Your task to perform on an android device: check storage Image 0: 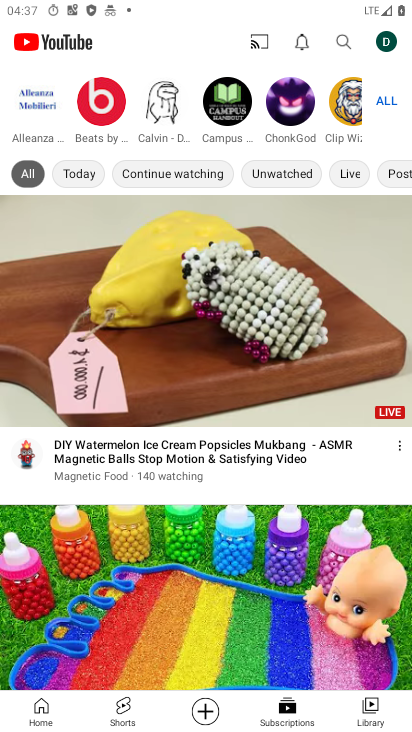
Step 0: press home button
Your task to perform on an android device: check storage Image 1: 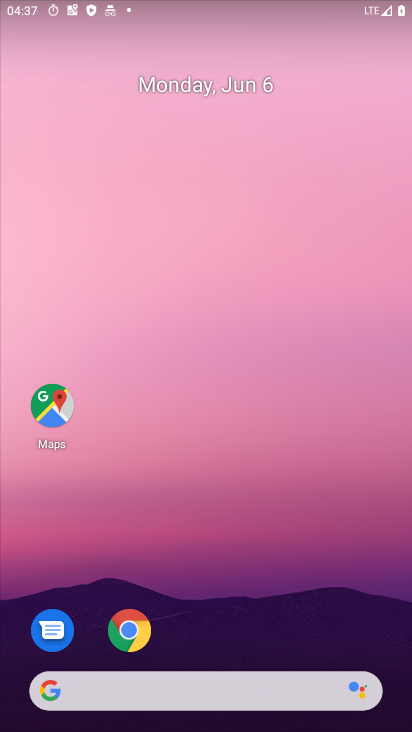
Step 1: drag from (213, 630) to (133, 48)
Your task to perform on an android device: check storage Image 2: 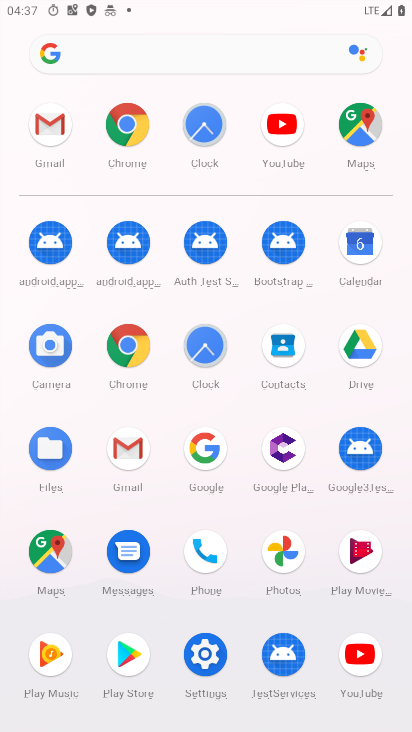
Step 2: click (196, 666)
Your task to perform on an android device: check storage Image 3: 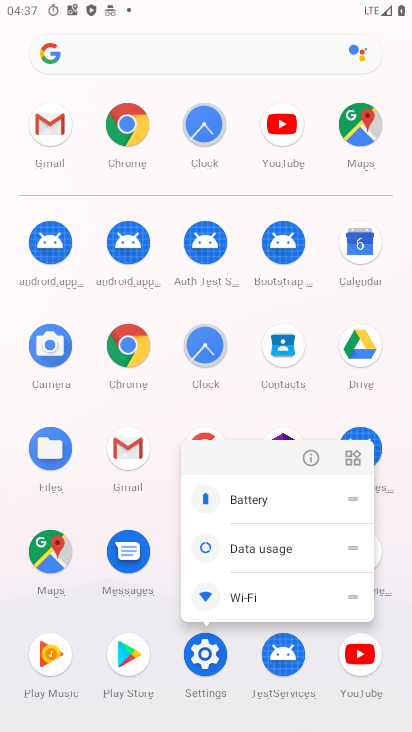
Step 3: click (210, 651)
Your task to perform on an android device: check storage Image 4: 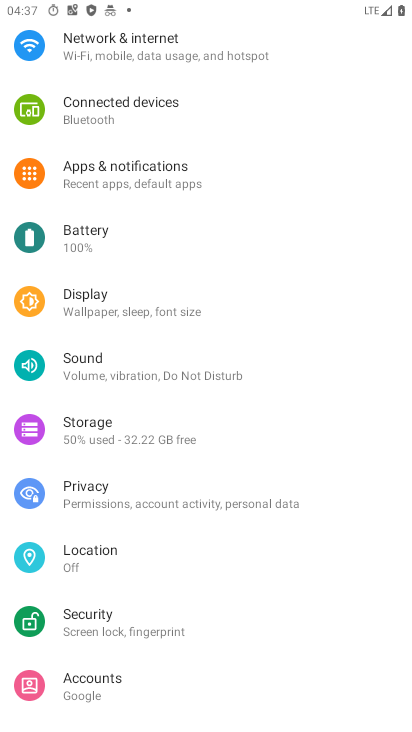
Step 4: click (85, 426)
Your task to perform on an android device: check storage Image 5: 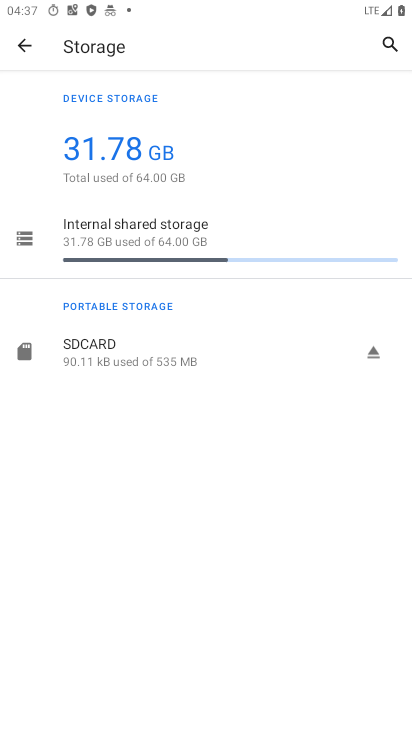
Step 5: task complete